Your task to perform on an android device: change the clock display to show seconds Image 0: 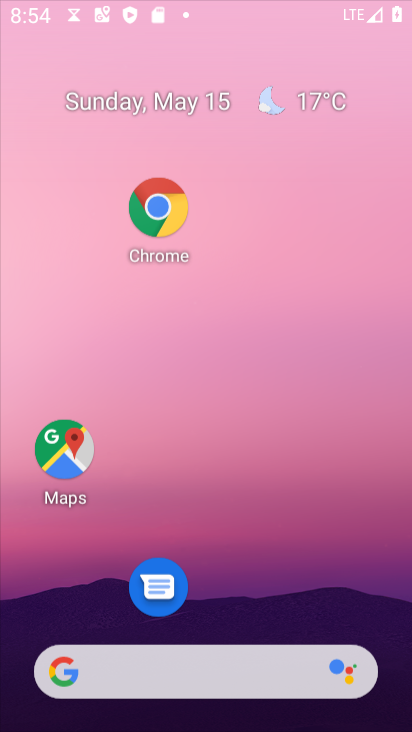
Step 0: drag from (313, 596) to (128, 110)
Your task to perform on an android device: change the clock display to show seconds Image 1: 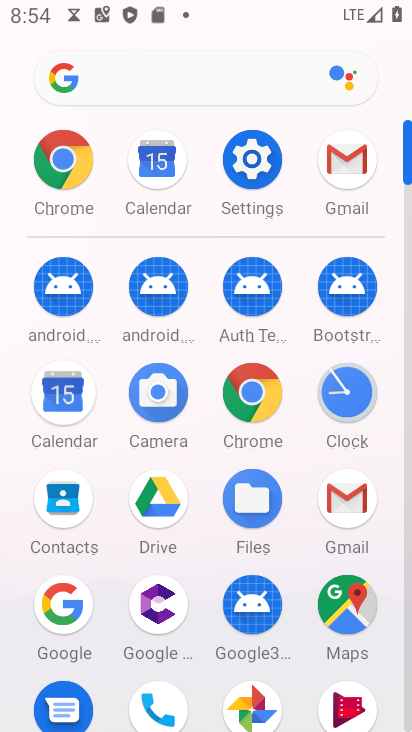
Step 1: click (341, 395)
Your task to perform on an android device: change the clock display to show seconds Image 2: 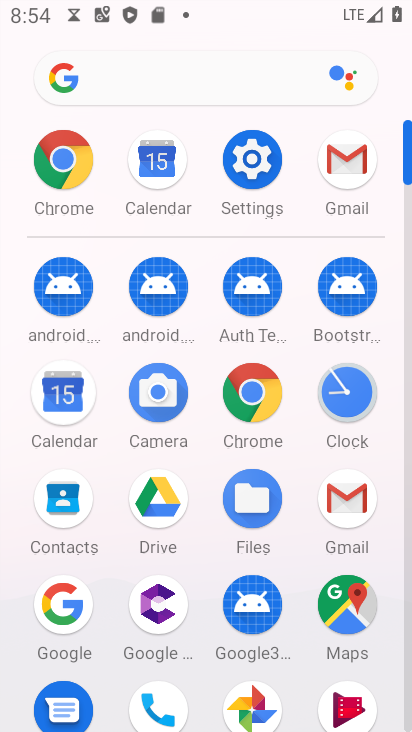
Step 2: click (341, 395)
Your task to perform on an android device: change the clock display to show seconds Image 3: 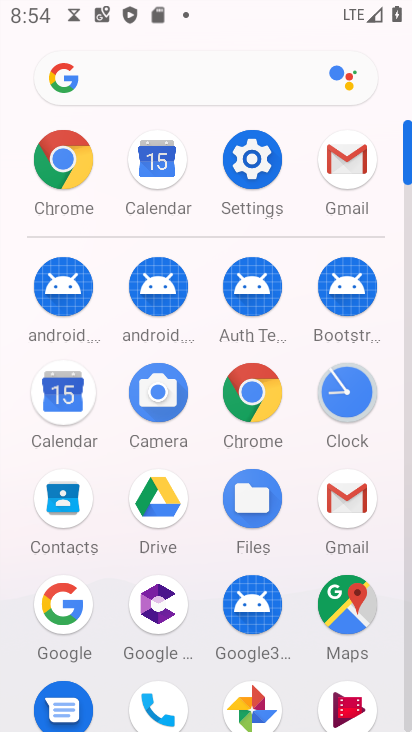
Step 3: click (341, 395)
Your task to perform on an android device: change the clock display to show seconds Image 4: 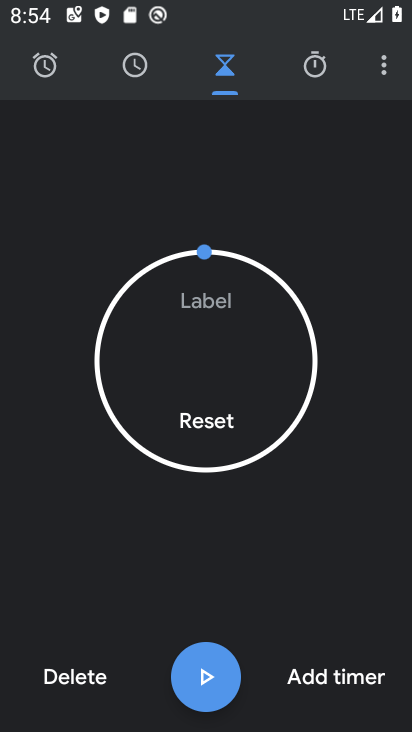
Step 4: click (374, 66)
Your task to perform on an android device: change the clock display to show seconds Image 5: 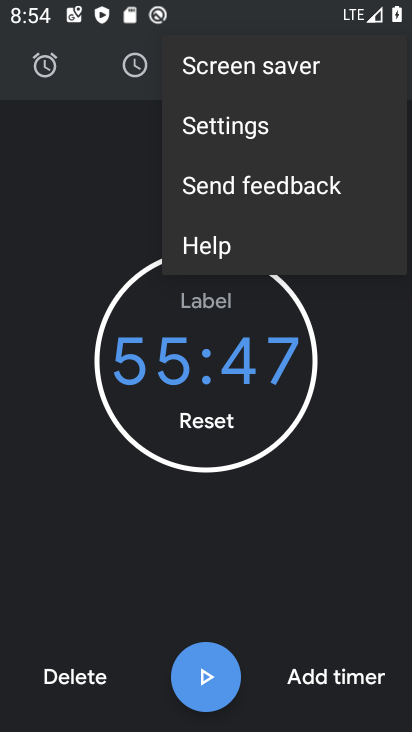
Step 5: click (235, 126)
Your task to perform on an android device: change the clock display to show seconds Image 6: 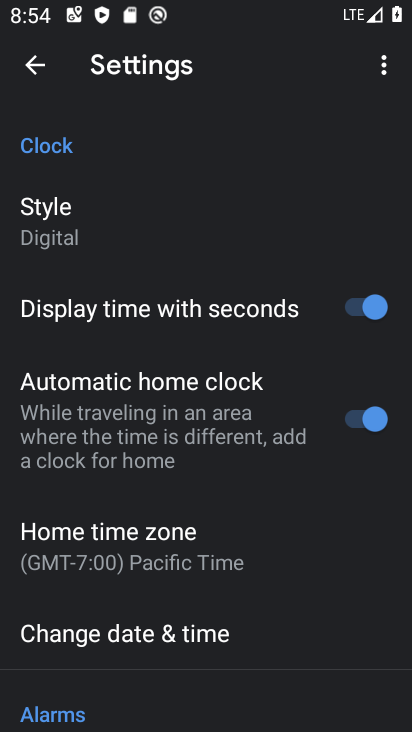
Step 6: click (371, 308)
Your task to perform on an android device: change the clock display to show seconds Image 7: 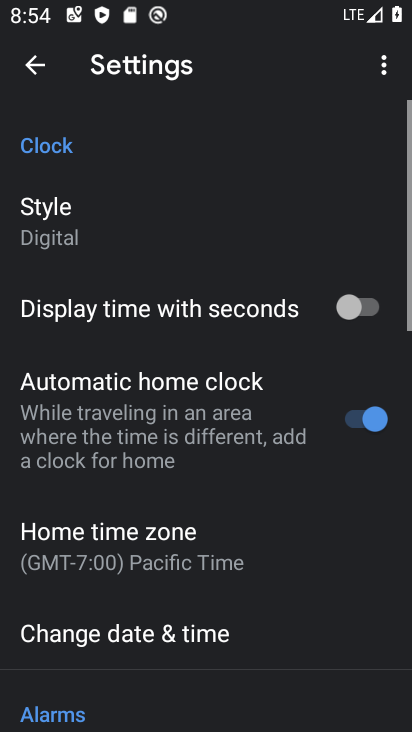
Step 7: click (372, 301)
Your task to perform on an android device: change the clock display to show seconds Image 8: 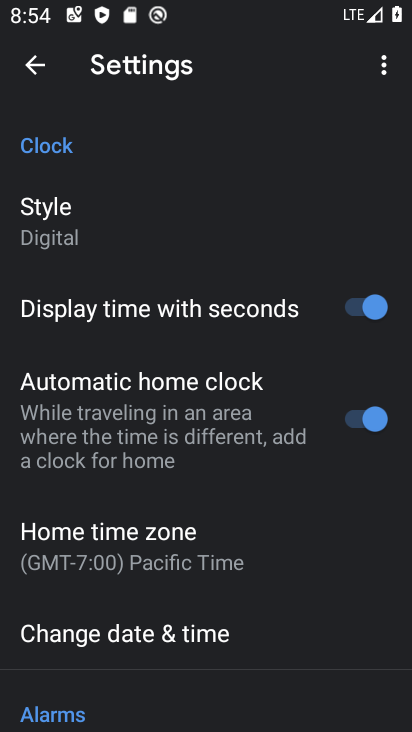
Step 8: click (382, 293)
Your task to perform on an android device: change the clock display to show seconds Image 9: 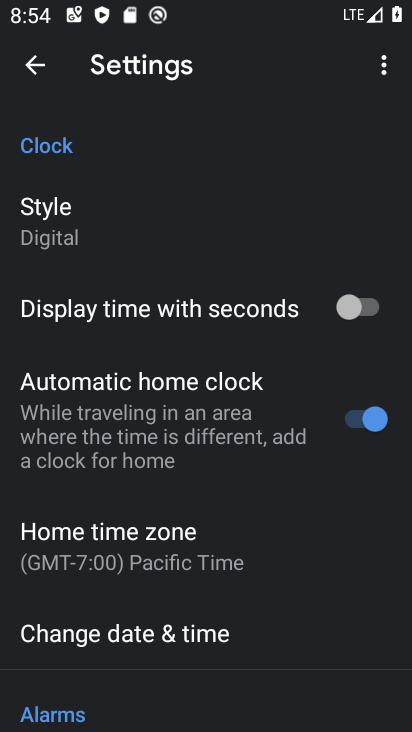
Step 9: task complete